Your task to perform on an android device: Open privacy settings Image 0: 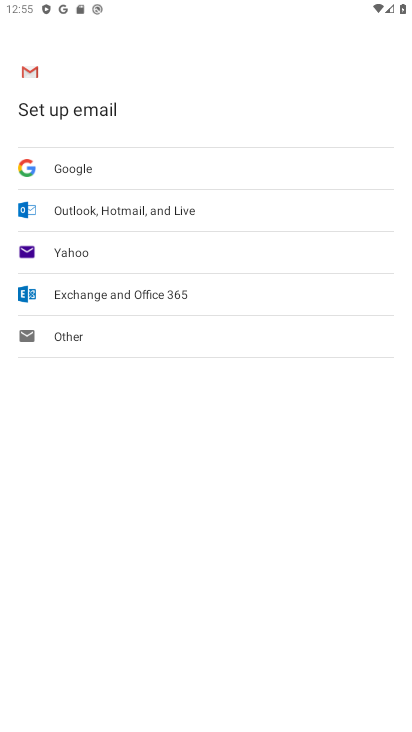
Step 0: press home button
Your task to perform on an android device: Open privacy settings Image 1: 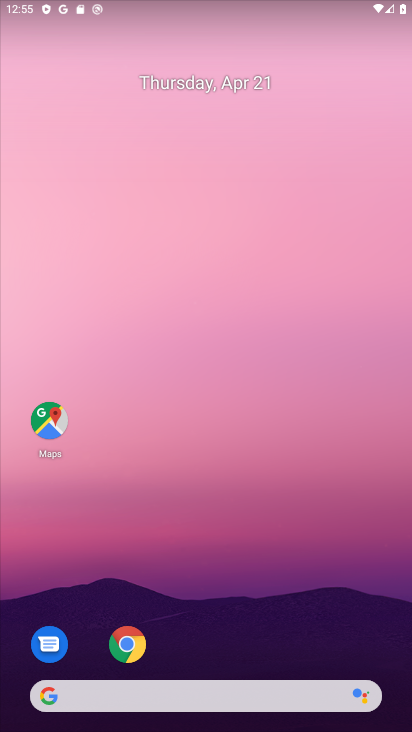
Step 1: drag from (293, 599) to (289, 72)
Your task to perform on an android device: Open privacy settings Image 2: 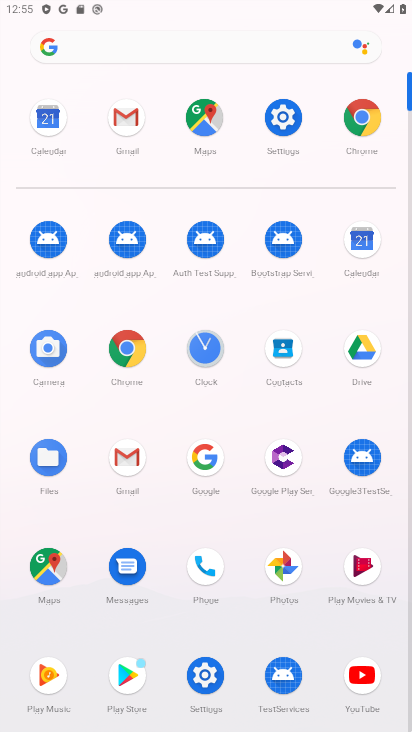
Step 2: click (359, 128)
Your task to perform on an android device: Open privacy settings Image 3: 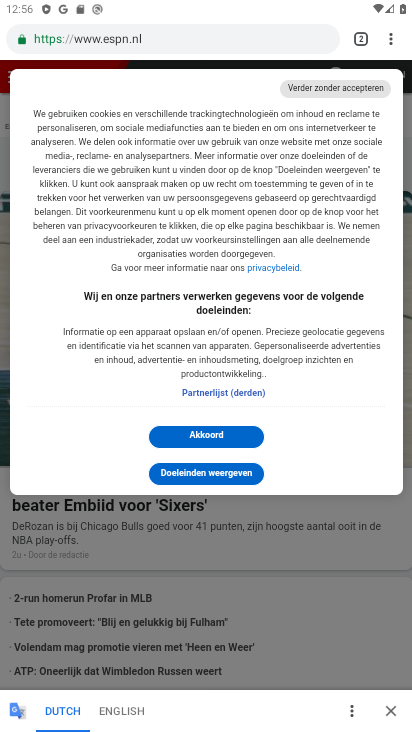
Step 3: drag from (392, 52) to (286, 513)
Your task to perform on an android device: Open privacy settings Image 4: 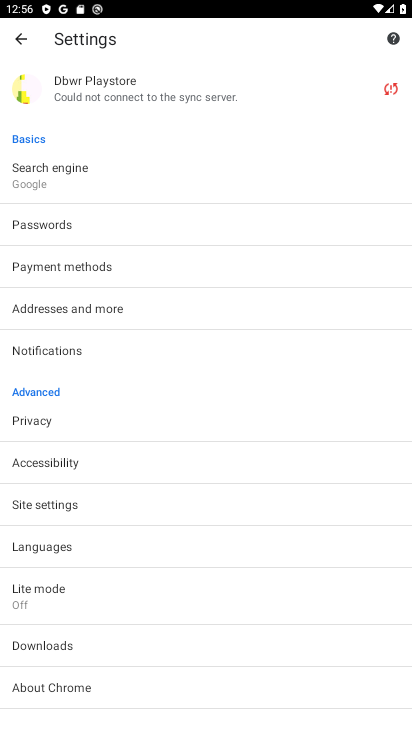
Step 4: click (196, 417)
Your task to perform on an android device: Open privacy settings Image 5: 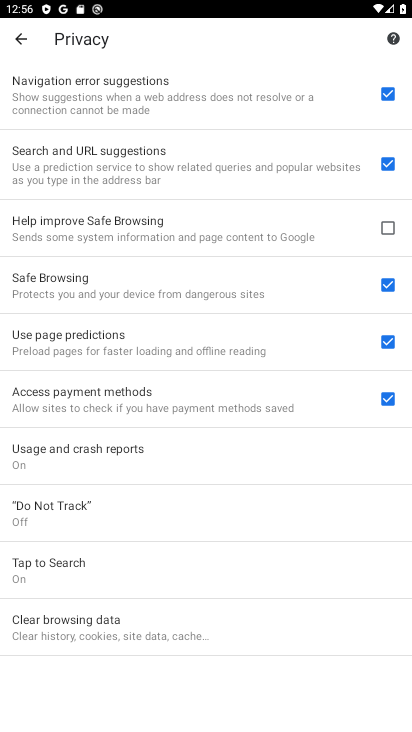
Step 5: task complete